Your task to perform on an android device: check out phone information Image 0: 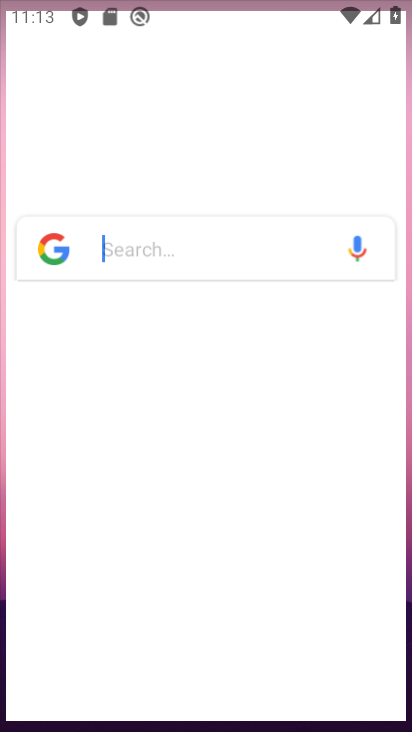
Step 0: drag from (383, 589) to (385, 224)
Your task to perform on an android device: check out phone information Image 1: 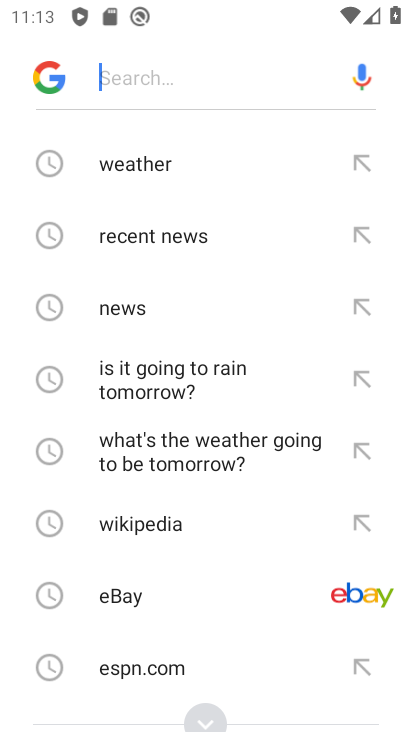
Step 1: press home button
Your task to perform on an android device: check out phone information Image 2: 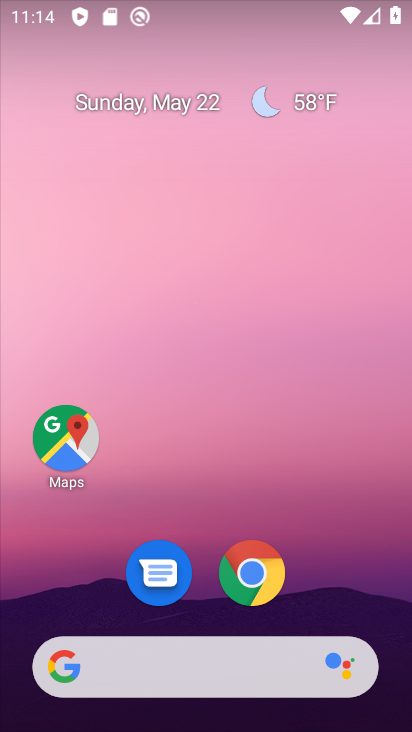
Step 2: drag from (365, 527) to (331, 251)
Your task to perform on an android device: check out phone information Image 3: 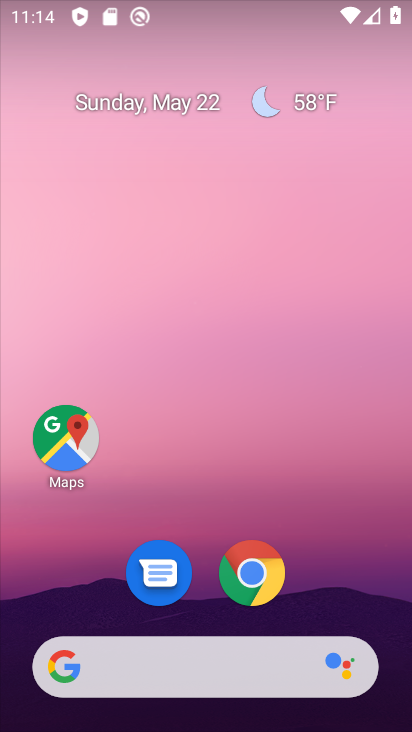
Step 3: drag from (369, 595) to (346, 168)
Your task to perform on an android device: check out phone information Image 4: 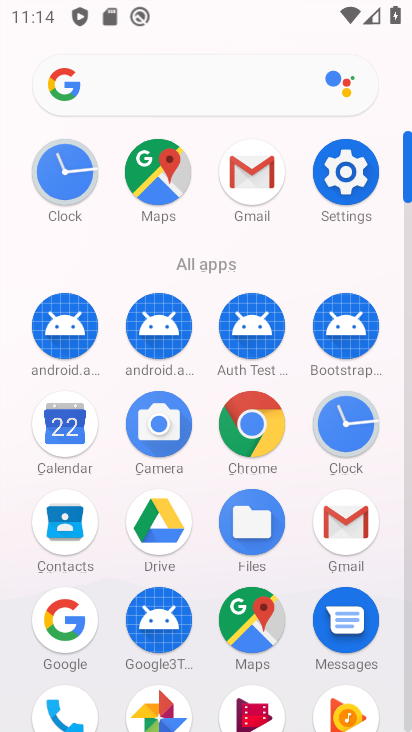
Step 4: drag from (290, 682) to (287, 459)
Your task to perform on an android device: check out phone information Image 5: 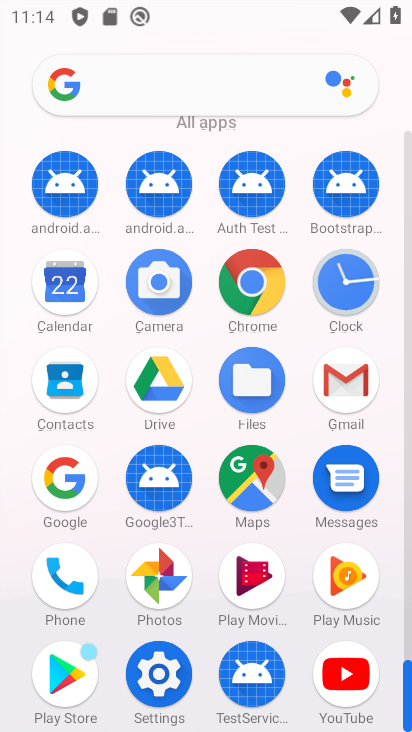
Step 5: click (58, 569)
Your task to perform on an android device: check out phone information Image 6: 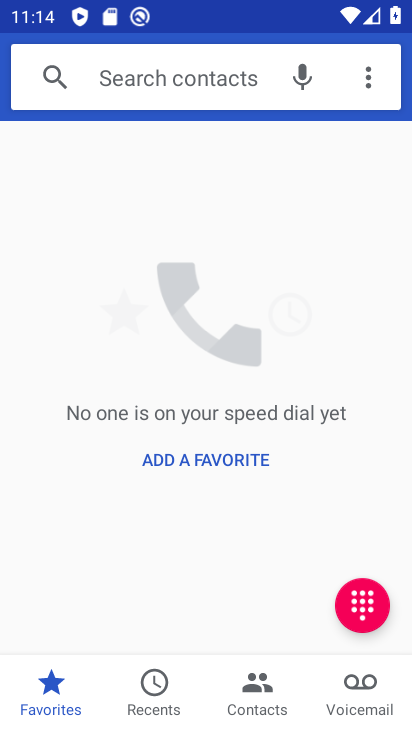
Step 6: click (163, 695)
Your task to perform on an android device: check out phone information Image 7: 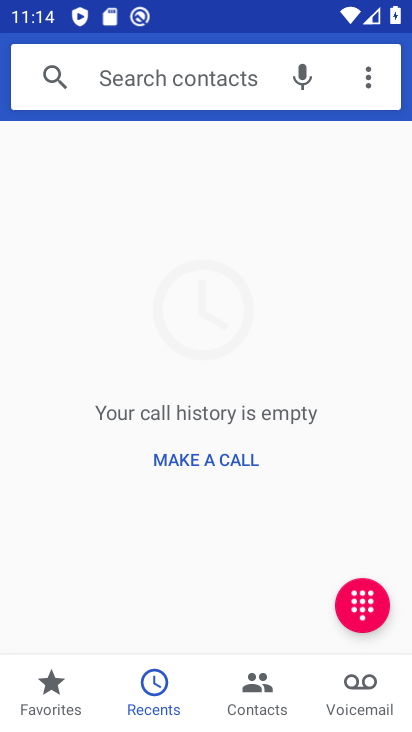
Step 7: task complete